Your task to perform on an android device: turn on improve location accuracy Image 0: 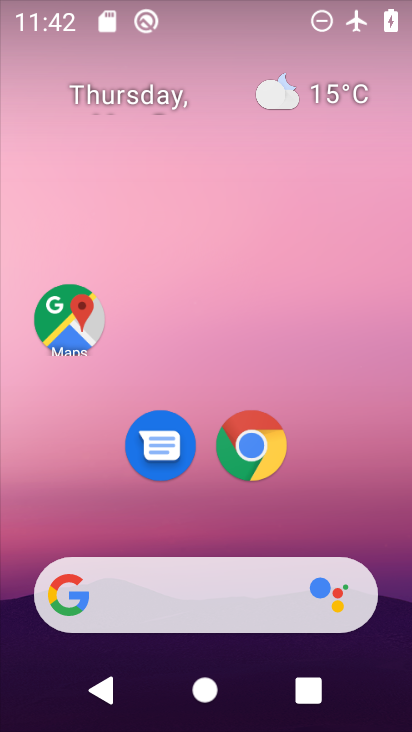
Step 0: drag from (305, 528) to (253, 19)
Your task to perform on an android device: turn on improve location accuracy Image 1: 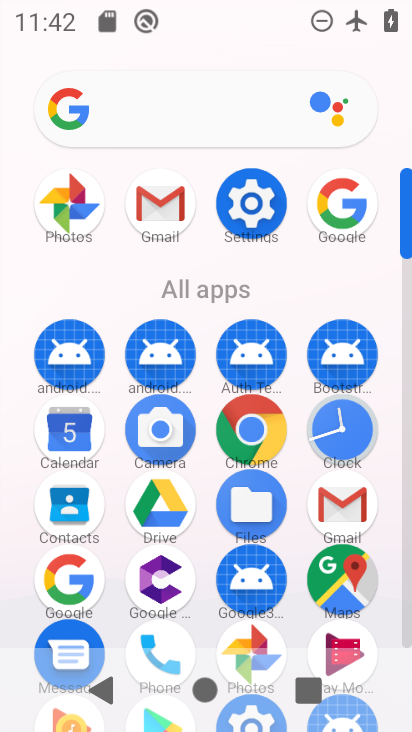
Step 1: click (260, 199)
Your task to perform on an android device: turn on improve location accuracy Image 2: 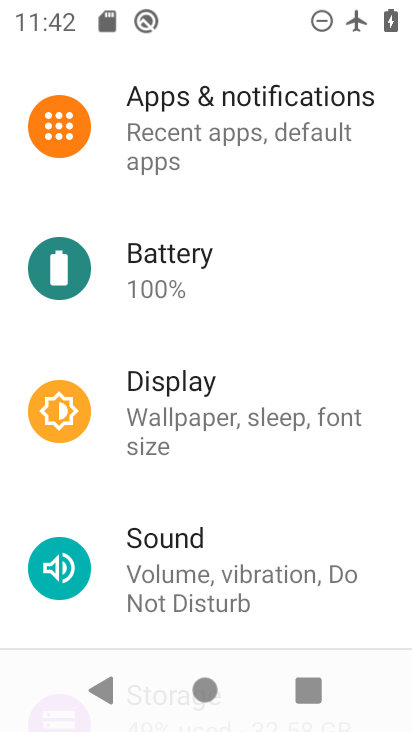
Step 2: drag from (253, 394) to (236, 57)
Your task to perform on an android device: turn on improve location accuracy Image 3: 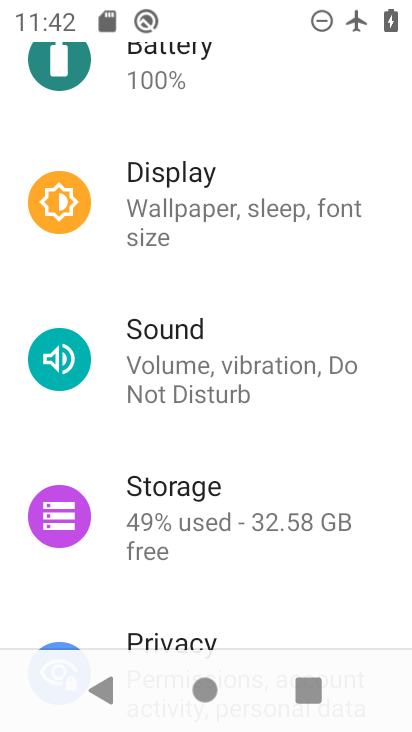
Step 3: drag from (268, 538) to (218, 87)
Your task to perform on an android device: turn on improve location accuracy Image 4: 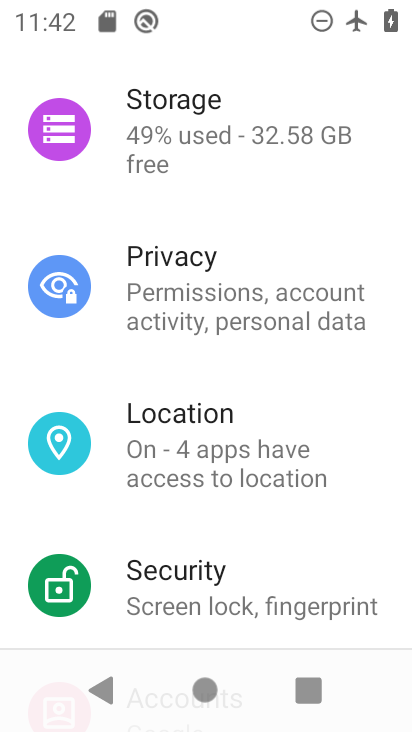
Step 4: click (231, 447)
Your task to perform on an android device: turn on improve location accuracy Image 5: 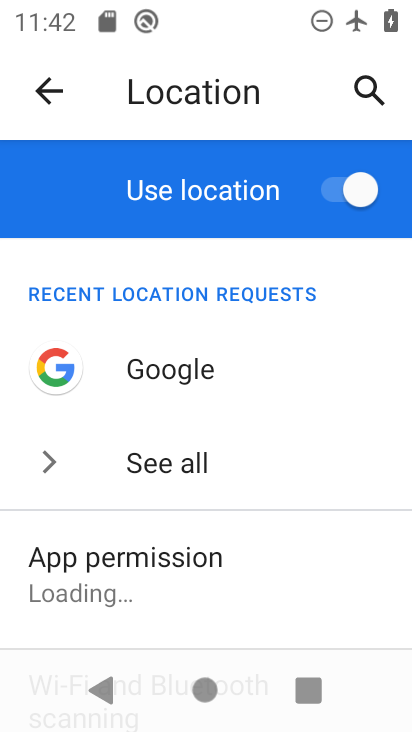
Step 5: drag from (288, 214) to (271, 107)
Your task to perform on an android device: turn on improve location accuracy Image 6: 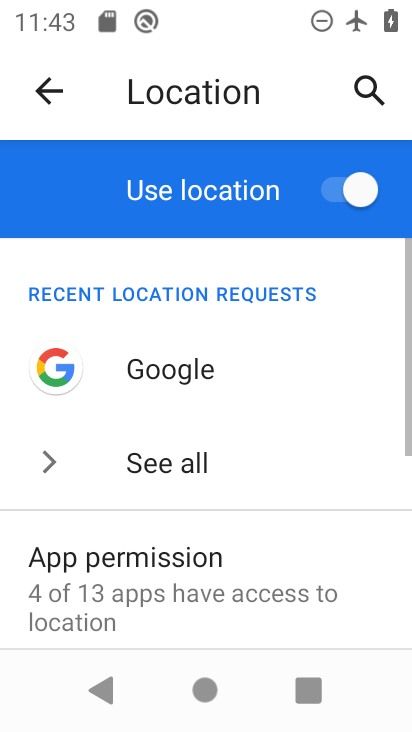
Step 6: drag from (170, 604) to (186, 187)
Your task to perform on an android device: turn on improve location accuracy Image 7: 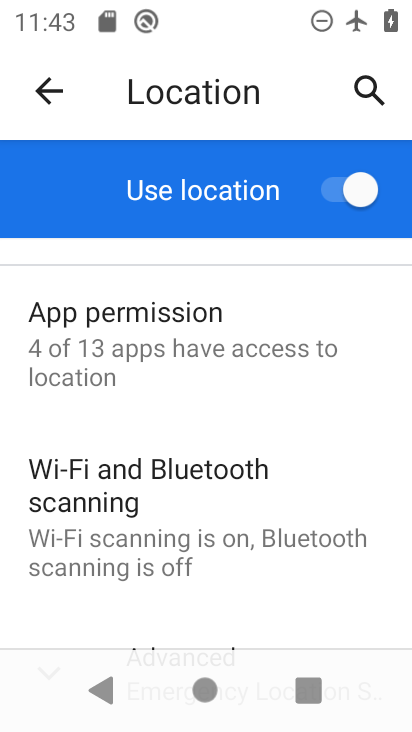
Step 7: drag from (172, 543) to (172, 115)
Your task to perform on an android device: turn on improve location accuracy Image 8: 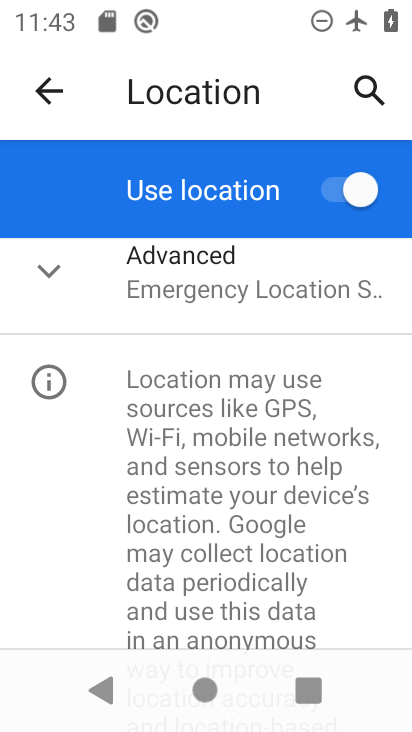
Step 8: click (174, 280)
Your task to perform on an android device: turn on improve location accuracy Image 9: 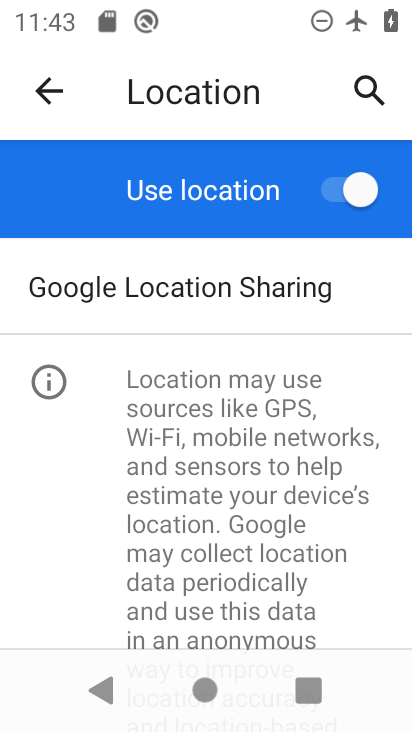
Step 9: drag from (142, 591) to (182, 204)
Your task to perform on an android device: turn on improve location accuracy Image 10: 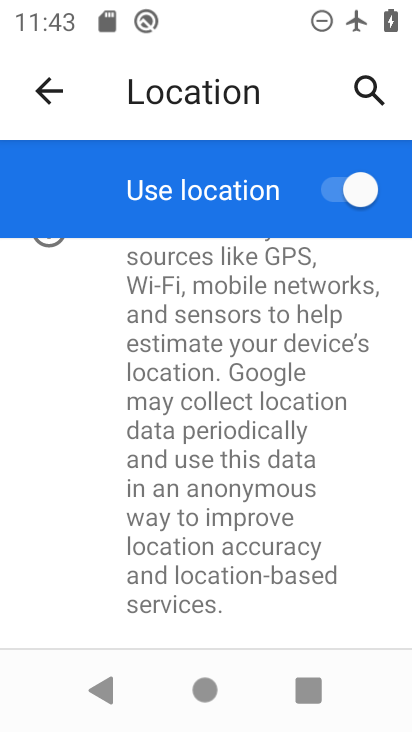
Step 10: drag from (217, 362) to (207, 718)
Your task to perform on an android device: turn on improve location accuracy Image 11: 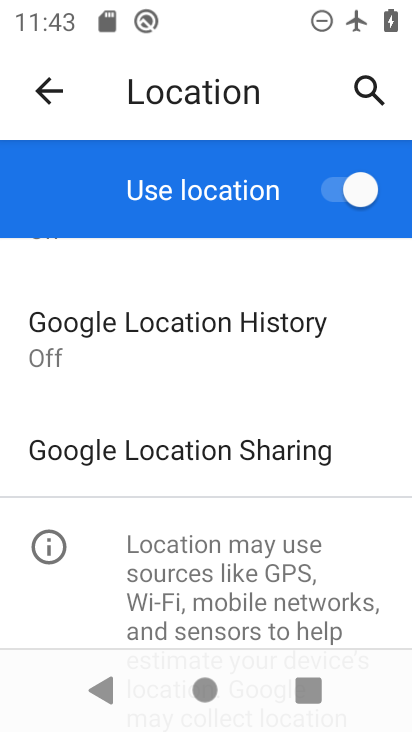
Step 11: drag from (217, 349) to (221, 649)
Your task to perform on an android device: turn on improve location accuracy Image 12: 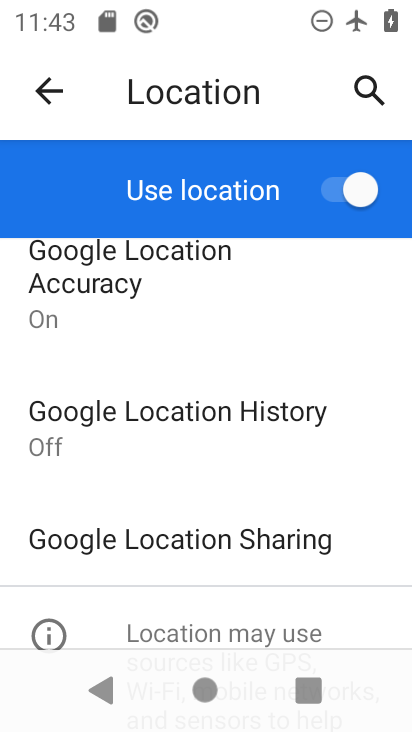
Step 12: click (77, 283)
Your task to perform on an android device: turn on improve location accuracy Image 13: 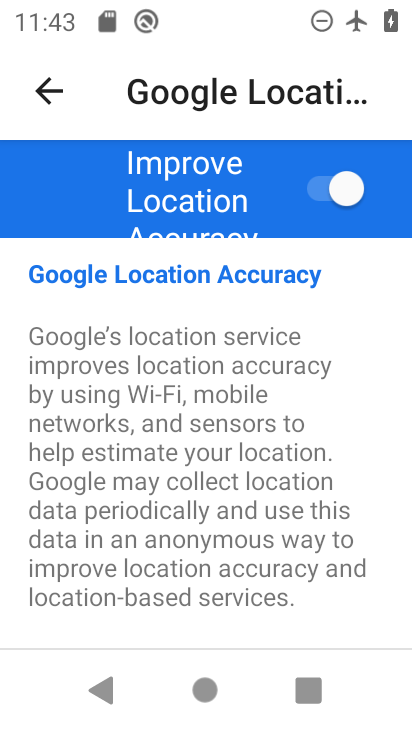
Step 13: task complete